Your task to perform on an android device: open app "Pluto TV - Live TV and Movies" Image 0: 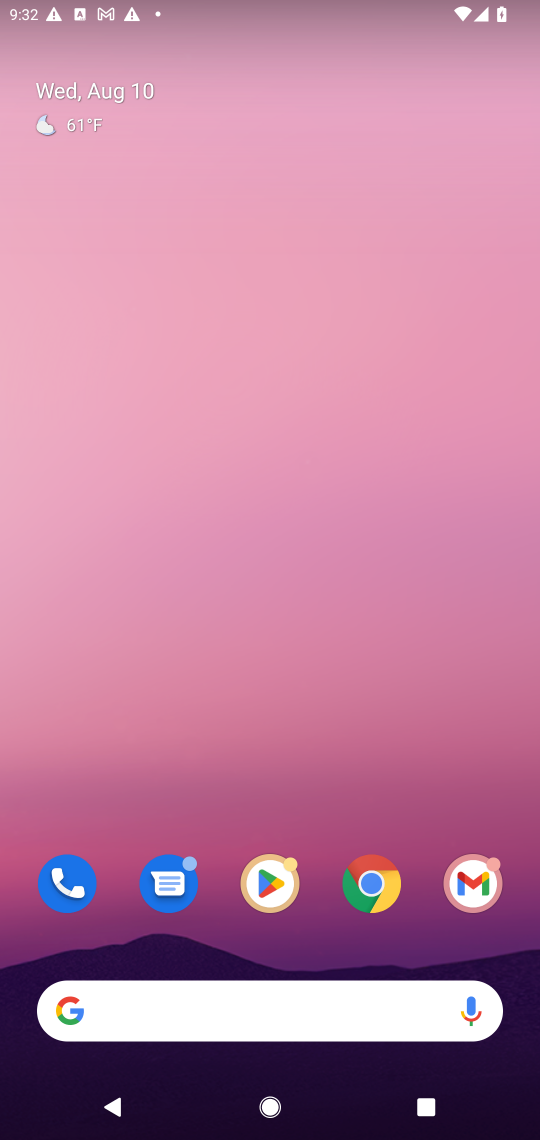
Step 0: click (278, 889)
Your task to perform on an android device: open app "Pluto TV - Live TV and Movies" Image 1: 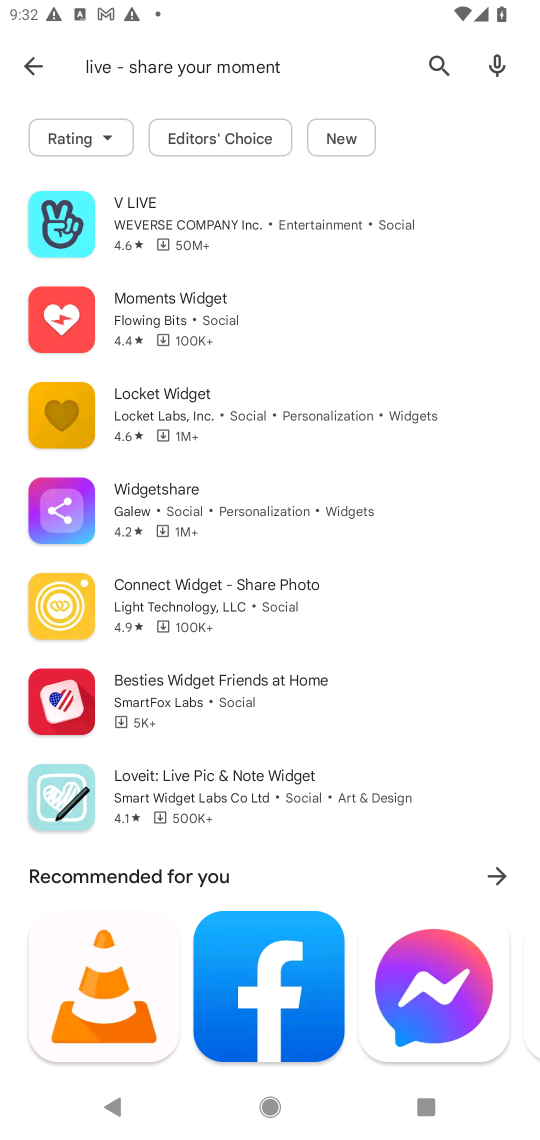
Step 1: click (429, 58)
Your task to perform on an android device: open app "Pluto TV - Live TV and Movies" Image 2: 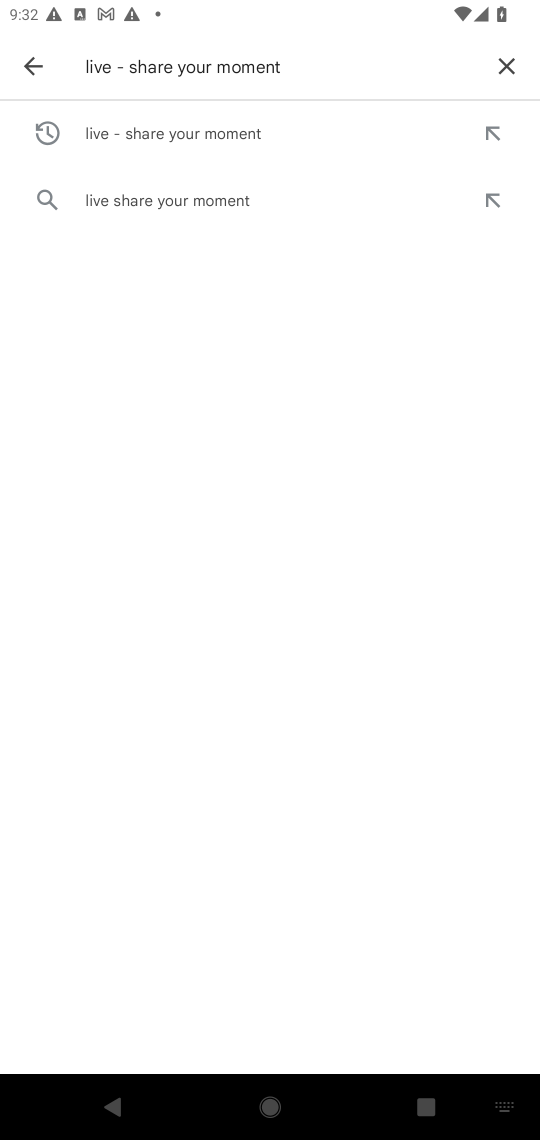
Step 2: click (499, 54)
Your task to perform on an android device: open app "Pluto TV - Live TV and Movies" Image 3: 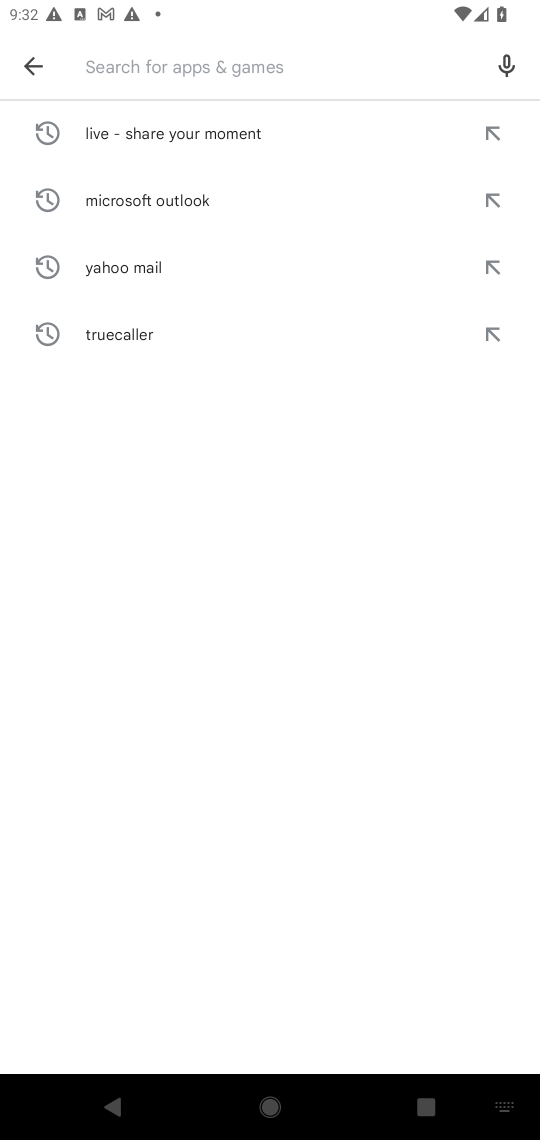
Step 3: type "Pluto TV - Live TV and Movies"
Your task to perform on an android device: open app "Pluto TV - Live TV and Movies" Image 4: 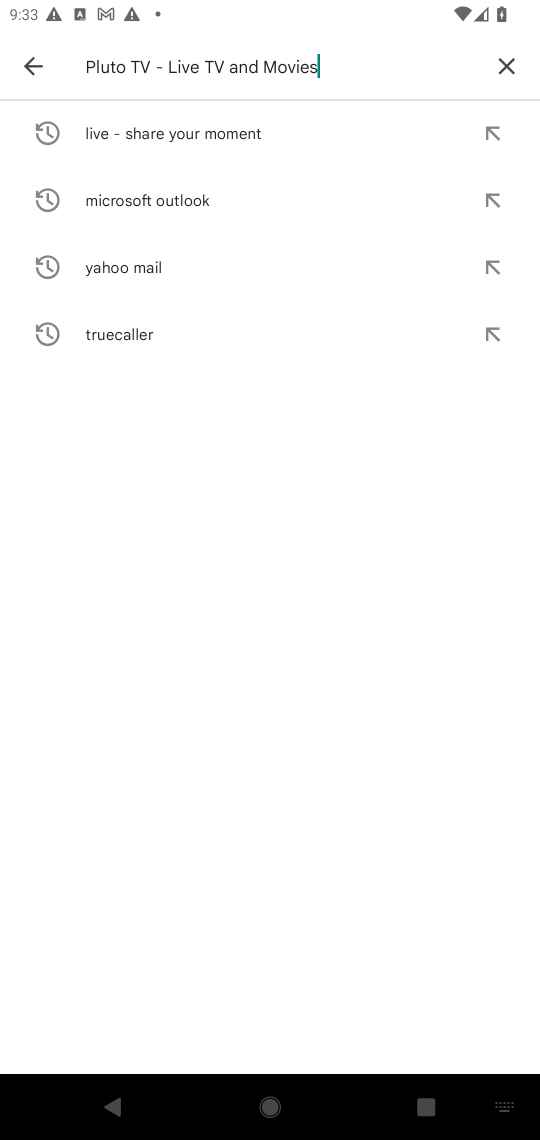
Step 4: type ""
Your task to perform on an android device: open app "Pluto TV - Live TV and Movies" Image 5: 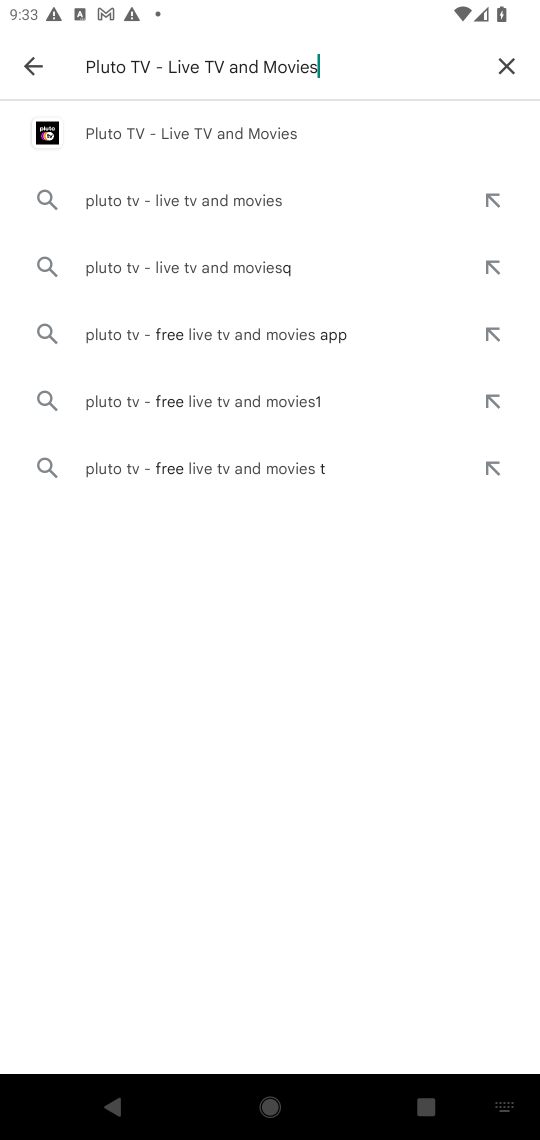
Step 5: click (242, 129)
Your task to perform on an android device: open app "Pluto TV - Live TV and Movies" Image 6: 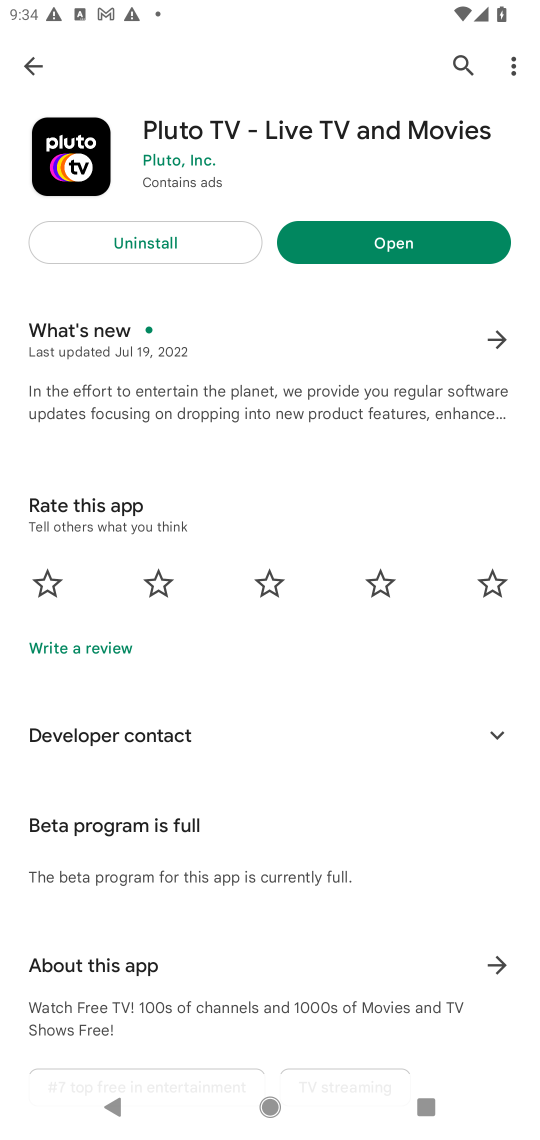
Step 6: click (394, 236)
Your task to perform on an android device: open app "Pluto TV - Live TV and Movies" Image 7: 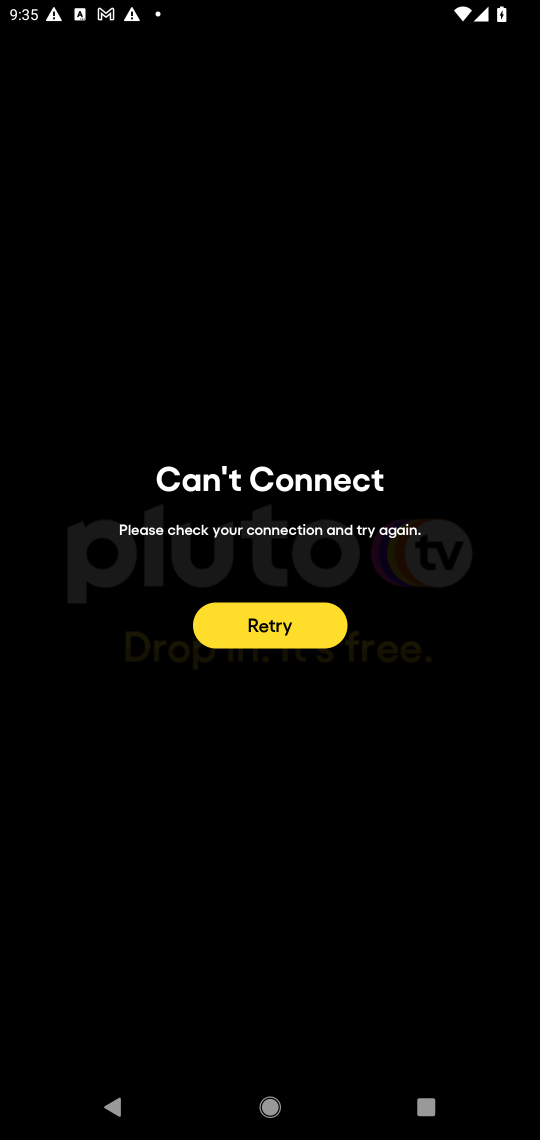
Step 7: task complete